Your task to perform on an android device: Open CNN.com Image 0: 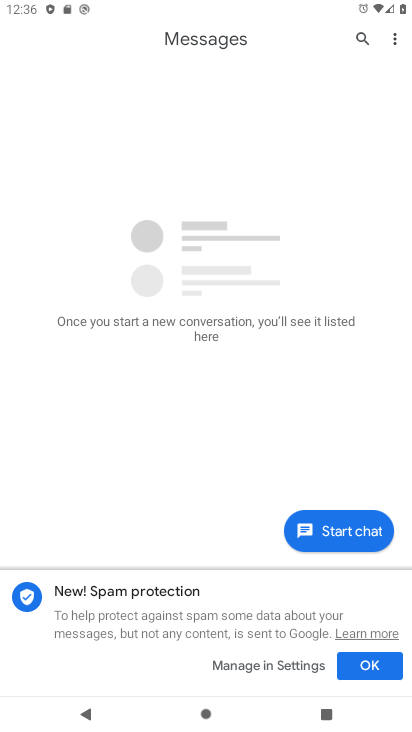
Step 0: press home button
Your task to perform on an android device: Open CNN.com Image 1: 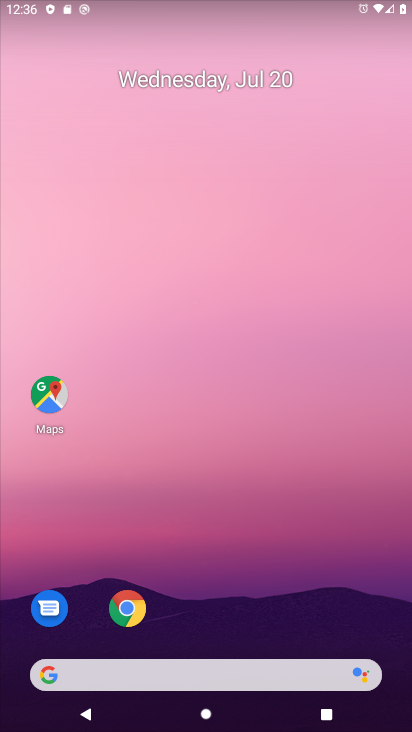
Step 1: click (129, 610)
Your task to perform on an android device: Open CNN.com Image 2: 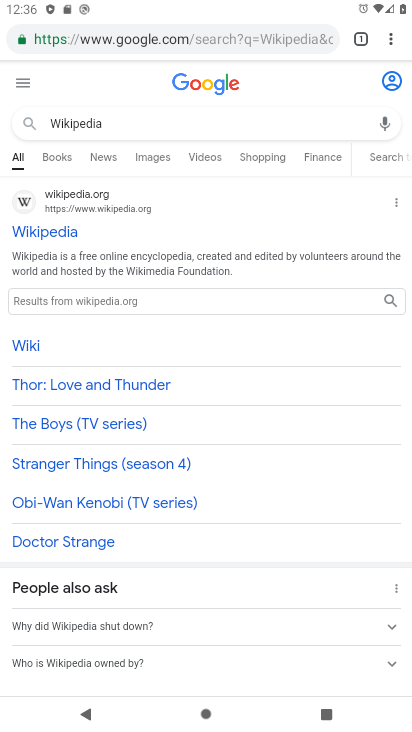
Step 2: click (254, 47)
Your task to perform on an android device: Open CNN.com Image 3: 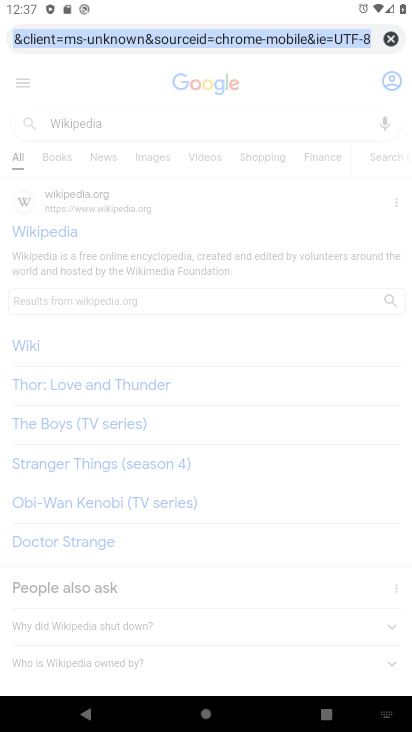
Step 3: type "CNN.com"
Your task to perform on an android device: Open CNN.com Image 4: 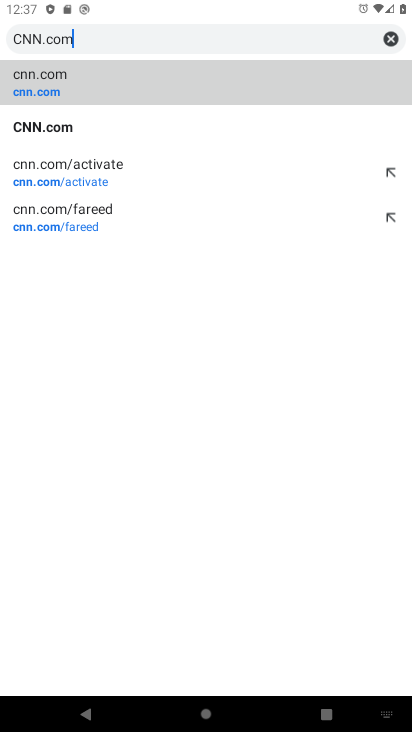
Step 4: click (69, 135)
Your task to perform on an android device: Open CNN.com Image 5: 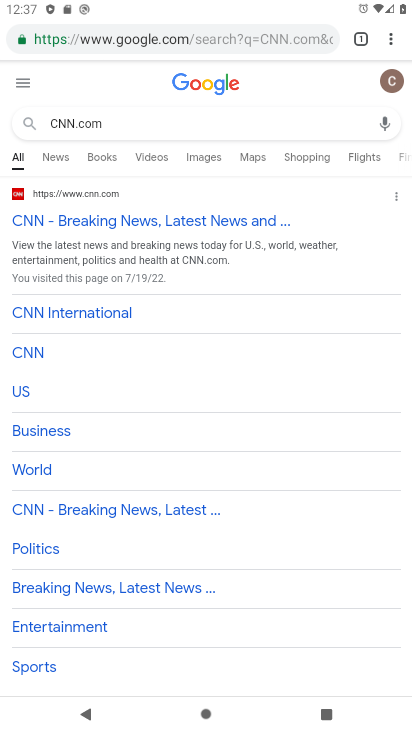
Step 5: click (125, 220)
Your task to perform on an android device: Open CNN.com Image 6: 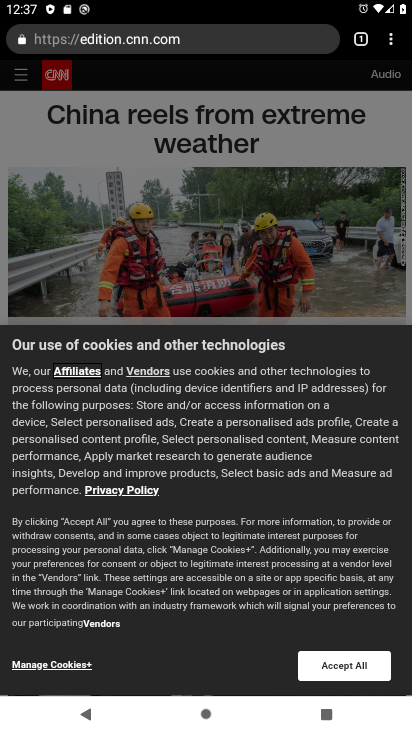
Step 6: click (354, 664)
Your task to perform on an android device: Open CNN.com Image 7: 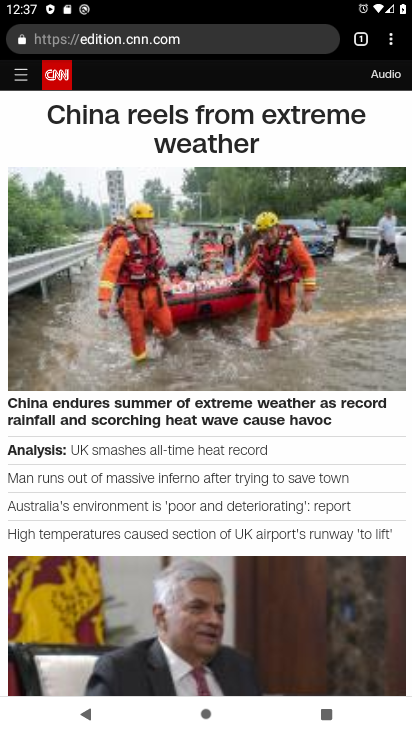
Step 7: task complete